Your task to perform on an android device: open app "Venmo" (install if not already installed), go to login, and select forgot password Image 0: 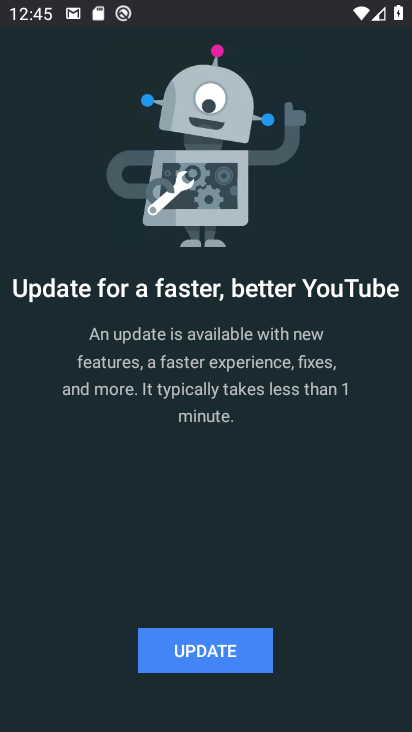
Step 0: press home button
Your task to perform on an android device: open app "Venmo" (install if not already installed), go to login, and select forgot password Image 1: 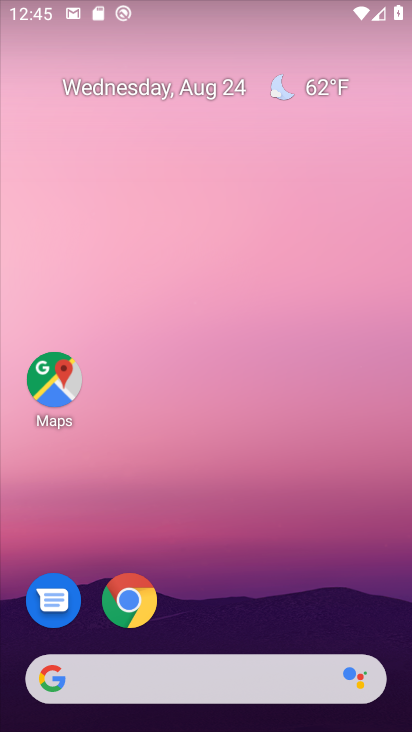
Step 1: drag from (265, 617) to (273, 82)
Your task to perform on an android device: open app "Venmo" (install if not already installed), go to login, and select forgot password Image 2: 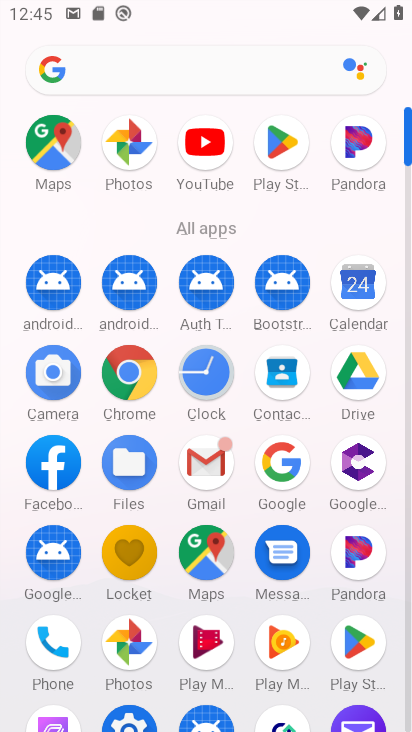
Step 2: click (293, 165)
Your task to perform on an android device: open app "Venmo" (install if not already installed), go to login, and select forgot password Image 3: 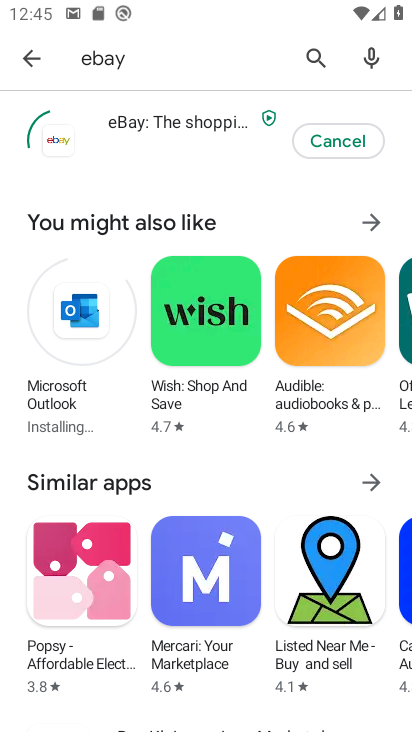
Step 3: click (319, 59)
Your task to perform on an android device: open app "Venmo" (install if not already installed), go to login, and select forgot password Image 4: 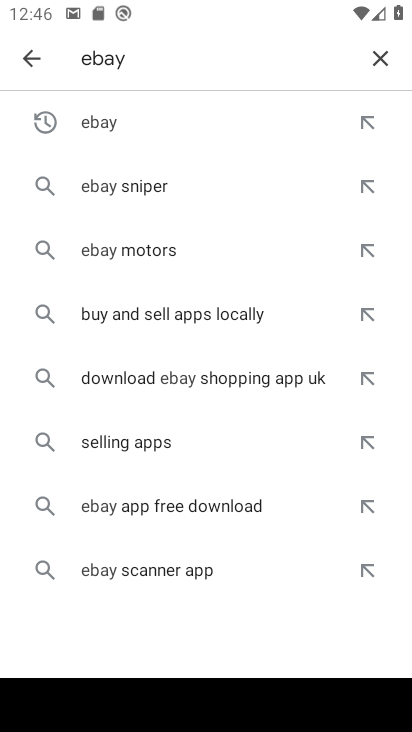
Step 4: click (362, 62)
Your task to perform on an android device: open app "Venmo" (install if not already installed), go to login, and select forgot password Image 5: 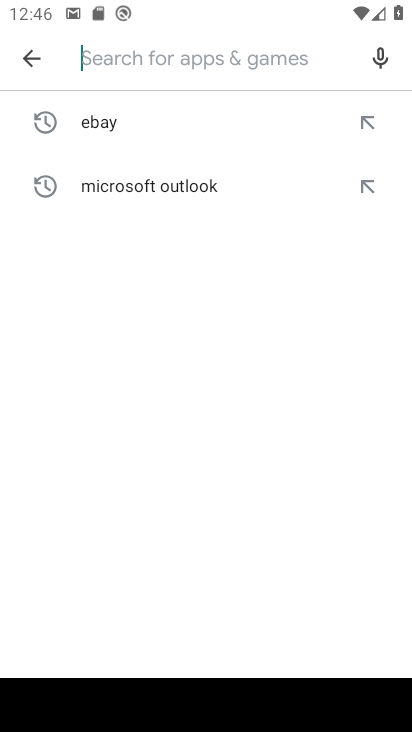
Step 5: type "venmo"
Your task to perform on an android device: open app "Venmo" (install if not already installed), go to login, and select forgot password Image 6: 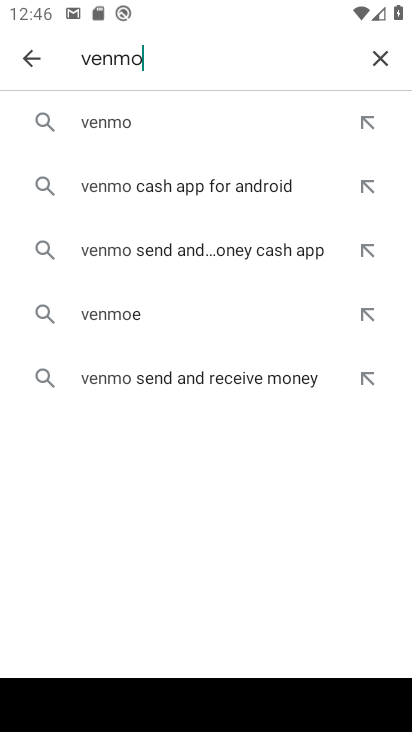
Step 6: click (188, 140)
Your task to perform on an android device: open app "Venmo" (install if not already installed), go to login, and select forgot password Image 7: 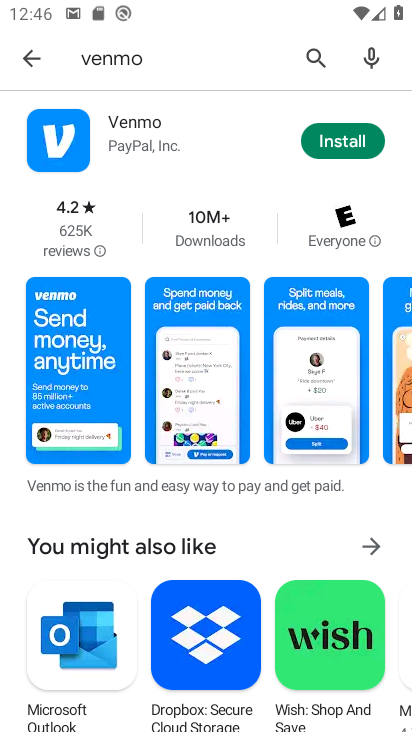
Step 7: click (352, 143)
Your task to perform on an android device: open app "Venmo" (install if not already installed), go to login, and select forgot password Image 8: 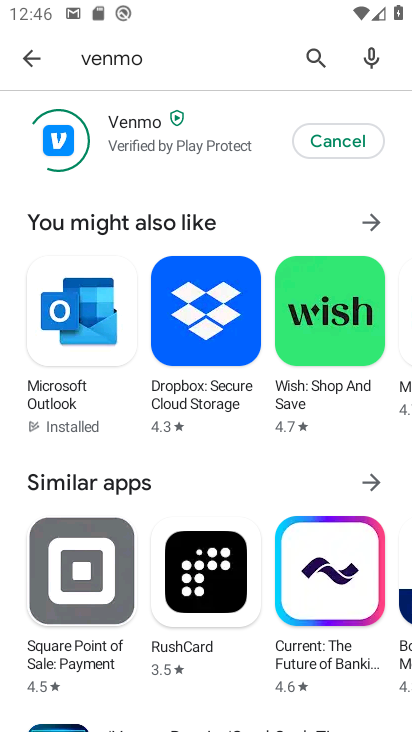
Step 8: task complete